Your task to perform on an android device: Clear the cart on costco. Image 0: 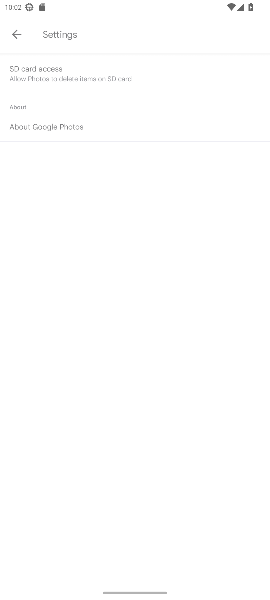
Step 0: click (171, 506)
Your task to perform on an android device: Clear the cart on costco. Image 1: 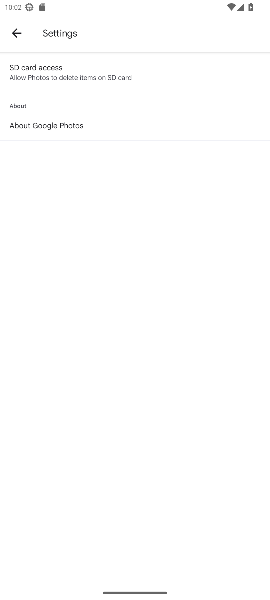
Step 1: press home button
Your task to perform on an android device: Clear the cart on costco. Image 2: 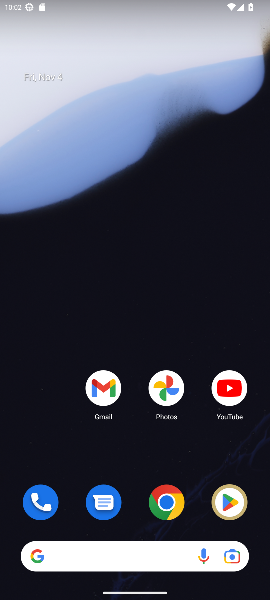
Step 2: click (172, 504)
Your task to perform on an android device: Clear the cart on costco. Image 3: 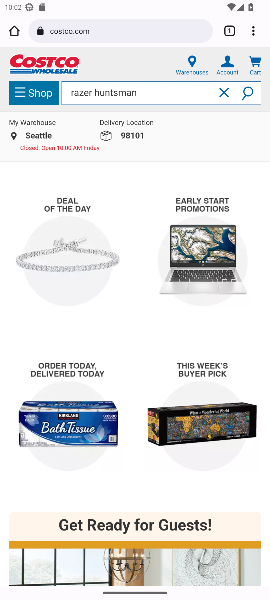
Step 3: click (256, 64)
Your task to perform on an android device: Clear the cart on costco. Image 4: 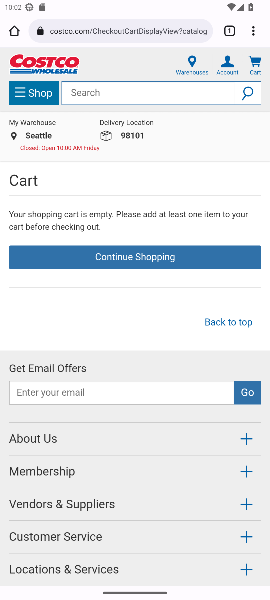
Step 4: task complete